Your task to perform on an android device: Open maps Image 0: 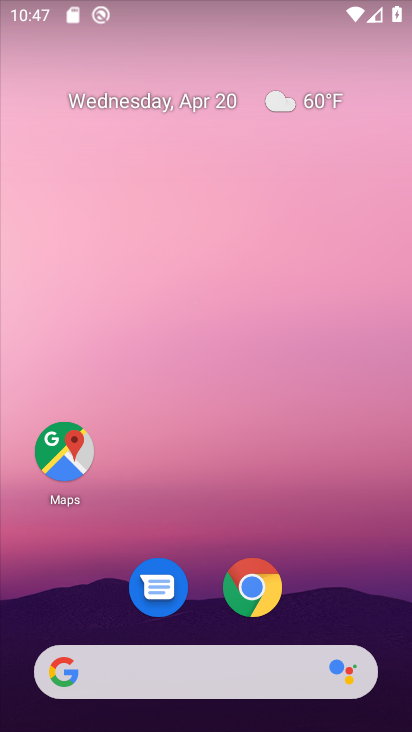
Step 0: click (64, 446)
Your task to perform on an android device: Open maps Image 1: 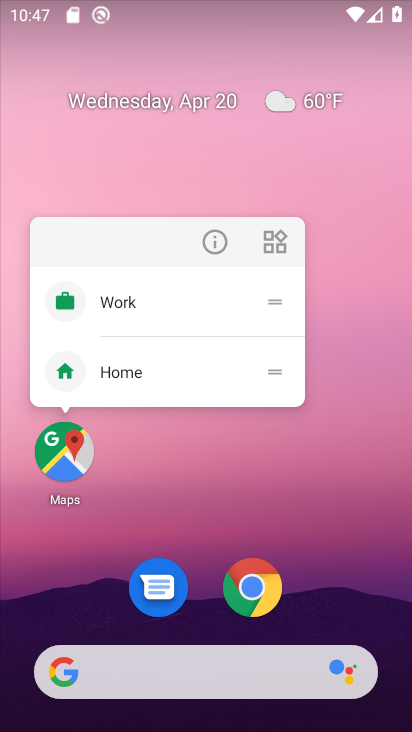
Step 1: click (150, 462)
Your task to perform on an android device: Open maps Image 2: 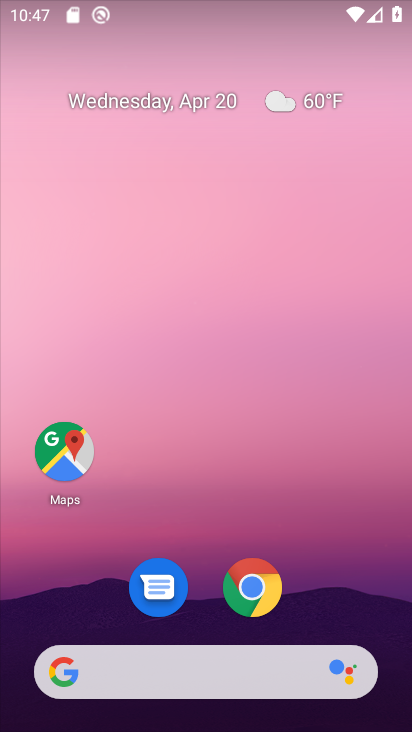
Step 2: click (348, 464)
Your task to perform on an android device: Open maps Image 3: 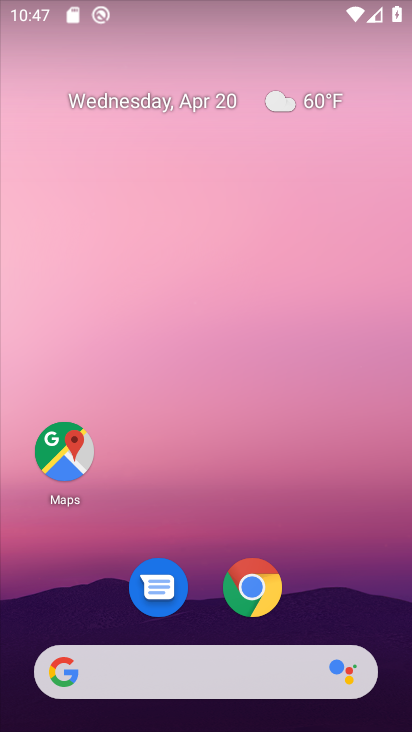
Step 3: click (61, 446)
Your task to perform on an android device: Open maps Image 4: 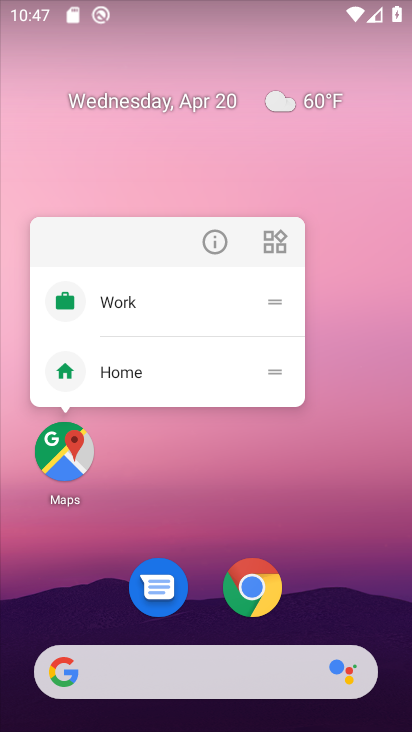
Step 4: click (64, 447)
Your task to perform on an android device: Open maps Image 5: 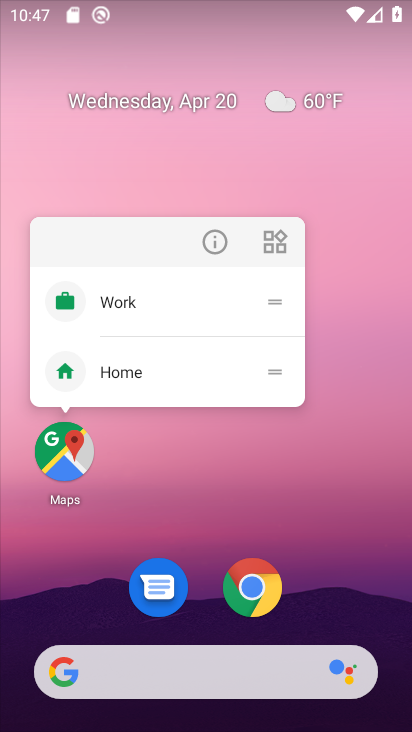
Step 5: click (141, 430)
Your task to perform on an android device: Open maps Image 6: 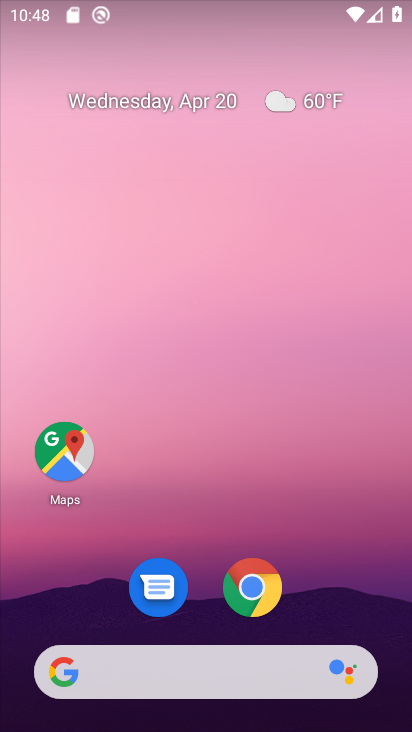
Step 6: click (143, 508)
Your task to perform on an android device: Open maps Image 7: 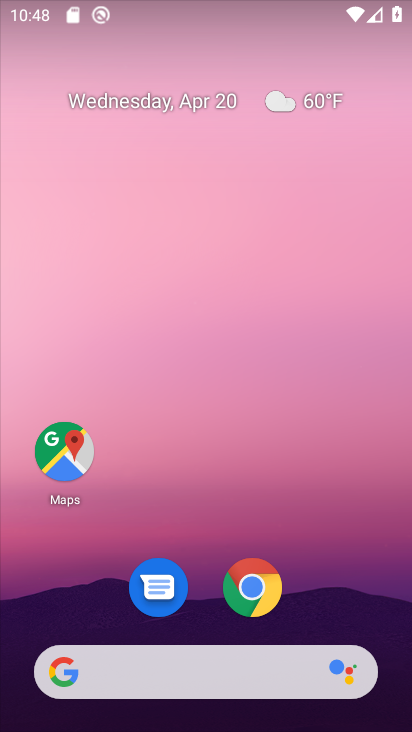
Step 7: click (64, 447)
Your task to perform on an android device: Open maps Image 8: 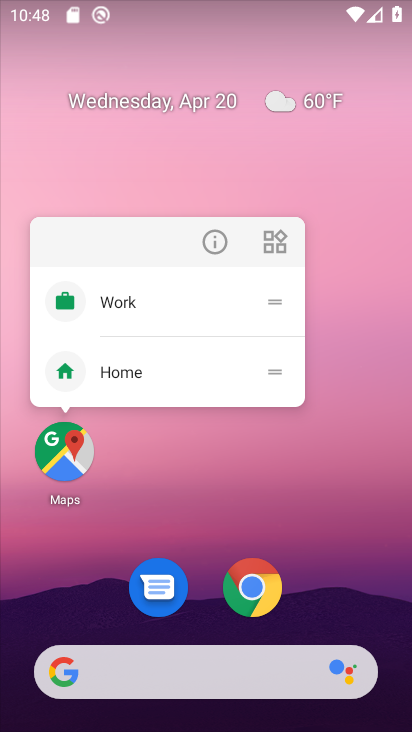
Step 8: click (117, 493)
Your task to perform on an android device: Open maps Image 9: 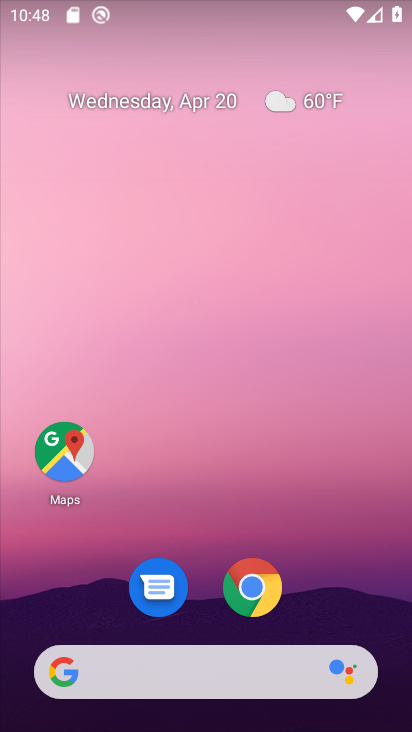
Step 9: click (171, 431)
Your task to perform on an android device: Open maps Image 10: 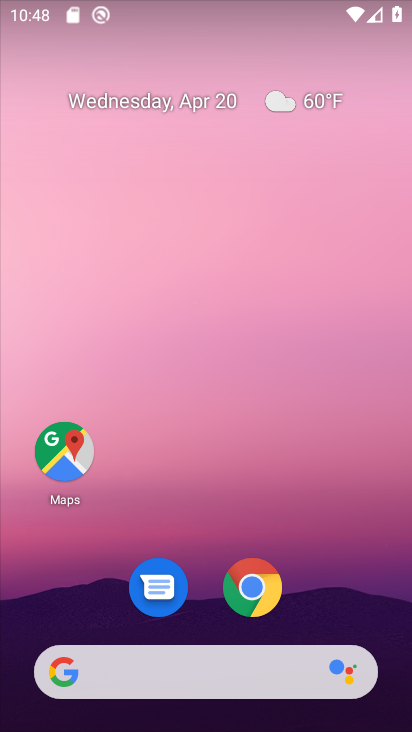
Step 10: click (62, 446)
Your task to perform on an android device: Open maps Image 11: 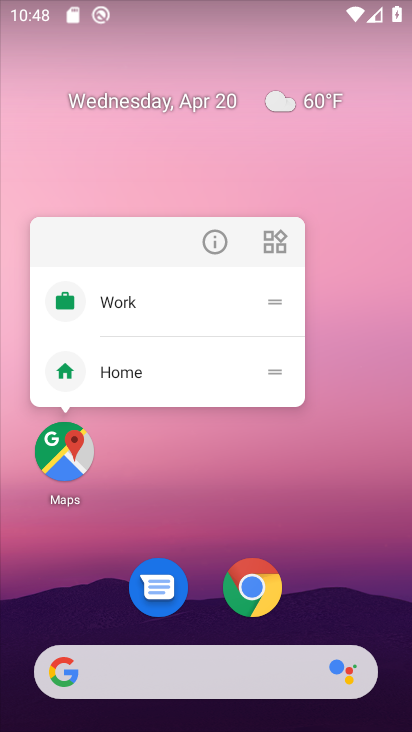
Step 11: click (213, 497)
Your task to perform on an android device: Open maps Image 12: 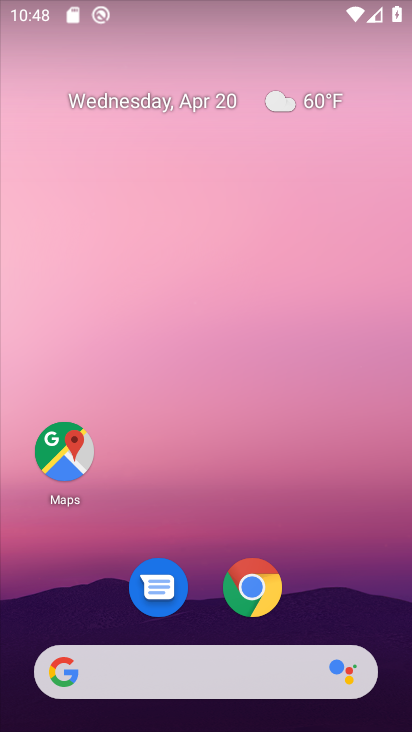
Step 12: drag from (217, 583) to (235, 76)
Your task to perform on an android device: Open maps Image 13: 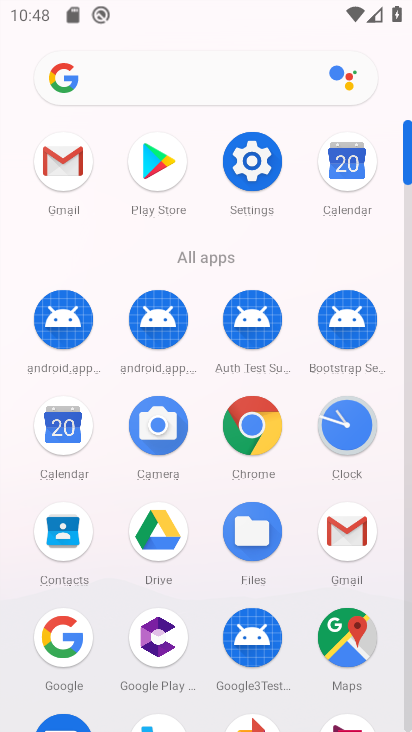
Step 13: click (346, 629)
Your task to perform on an android device: Open maps Image 14: 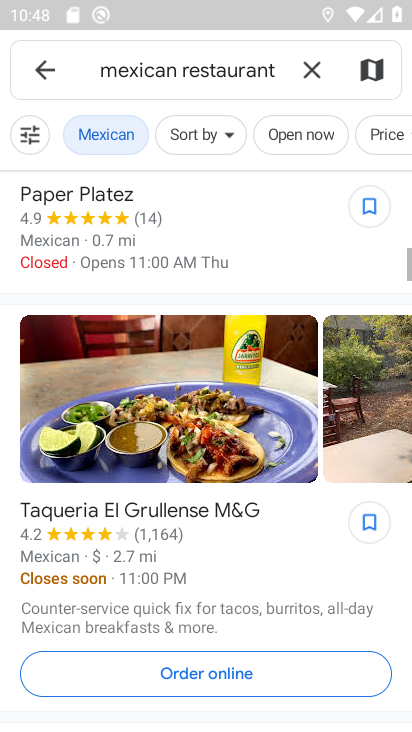
Step 14: click (51, 69)
Your task to perform on an android device: Open maps Image 15: 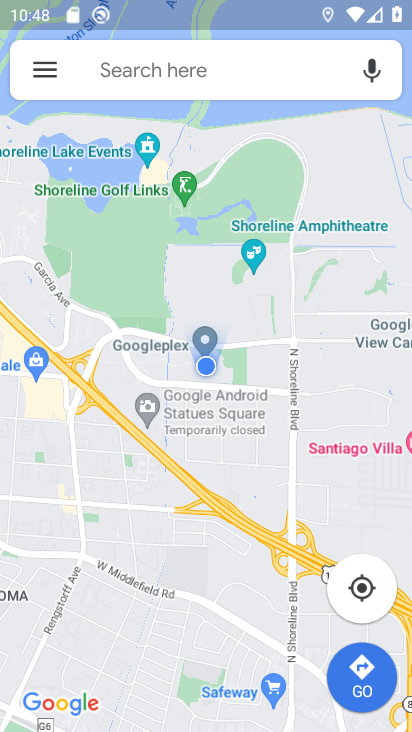
Step 15: task complete